Your task to perform on an android device: delete browsing data in the chrome app Image 0: 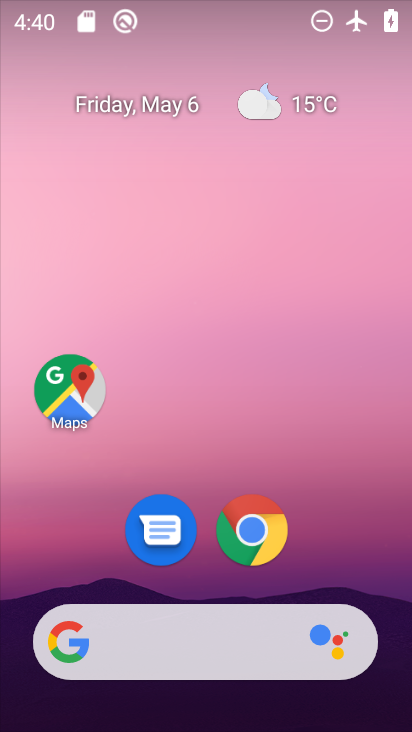
Step 0: drag from (329, 565) to (301, 85)
Your task to perform on an android device: delete browsing data in the chrome app Image 1: 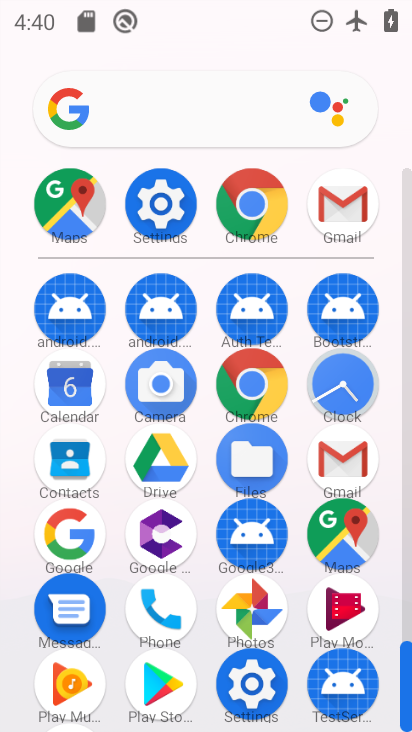
Step 1: click (253, 203)
Your task to perform on an android device: delete browsing data in the chrome app Image 2: 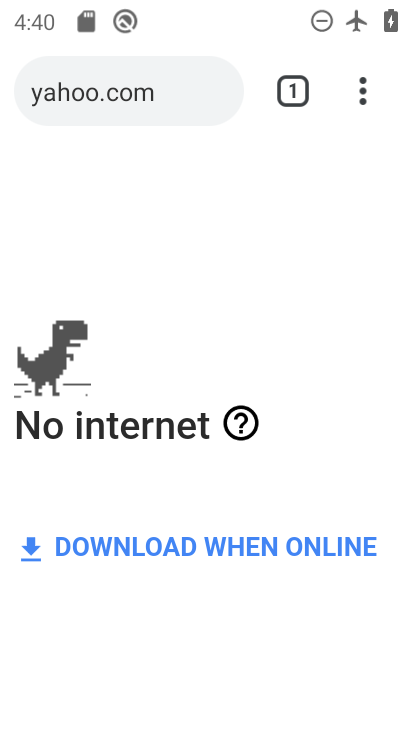
Step 2: drag from (357, 81) to (69, 543)
Your task to perform on an android device: delete browsing data in the chrome app Image 3: 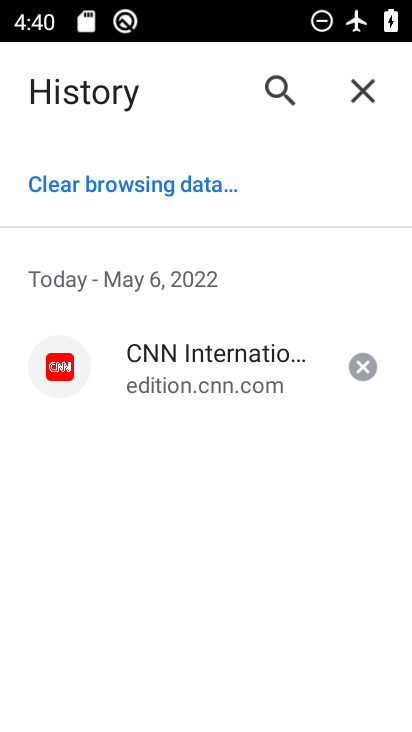
Step 3: click (93, 188)
Your task to perform on an android device: delete browsing data in the chrome app Image 4: 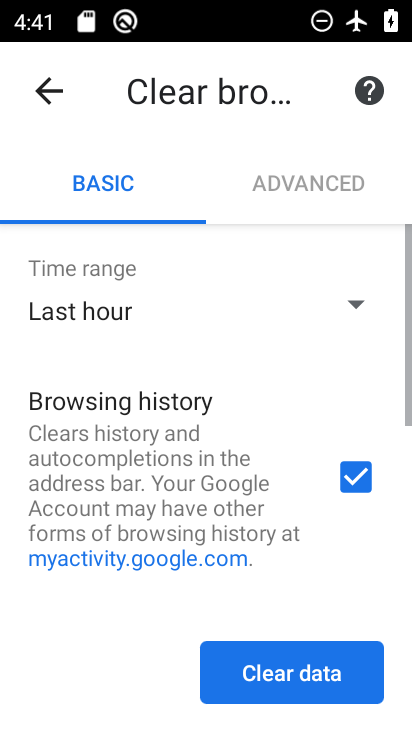
Step 4: click (274, 688)
Your task to perform on an android device: delete browsing data in the chrome app Image 5: 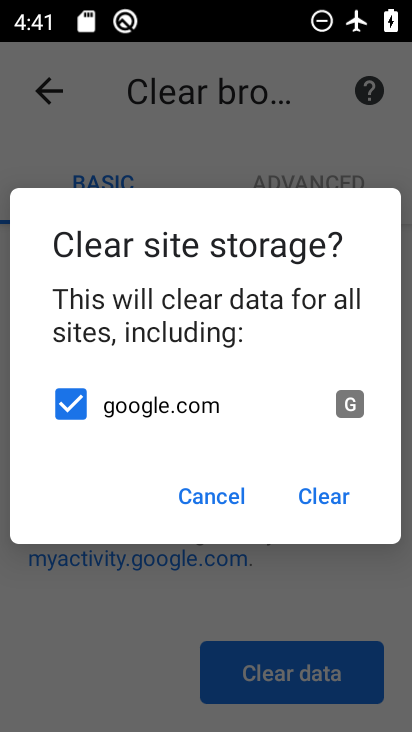
Step 5: click (330, 508)
Your task to perform on an android device: delete browsing data in the chrome app Image 6: 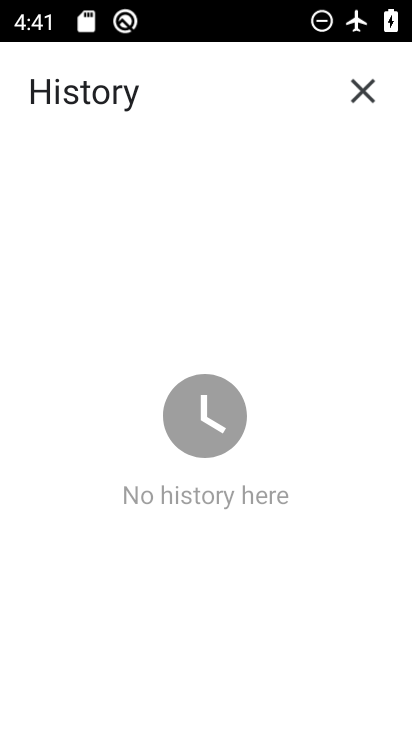
Step 6: task complete